Your task to perform on an android device: Add acer predator to the cart on newegg Image 0: 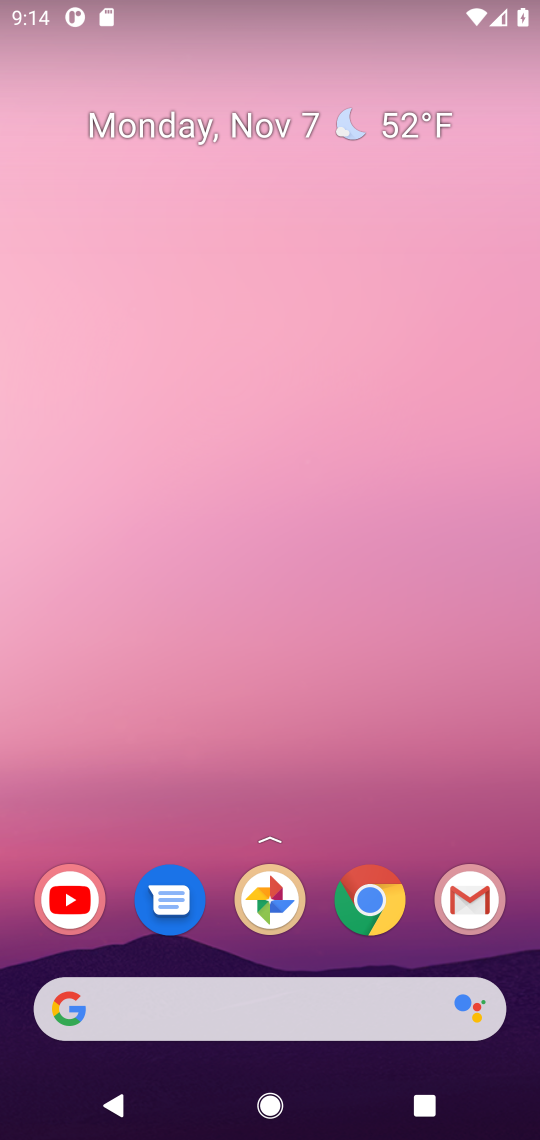
Step 0: click (321, 989)
Your task to perform on an android device: Add acer predator to the cart on newegg Image 1: 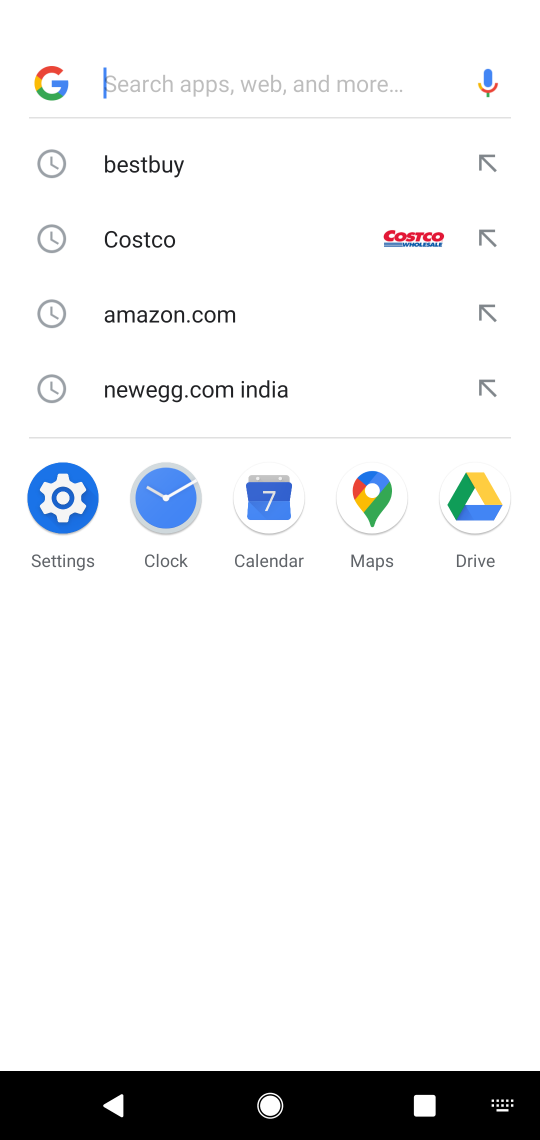
Step 1: task complete